Your task to perform on an android device: Open sound settings Image 0: 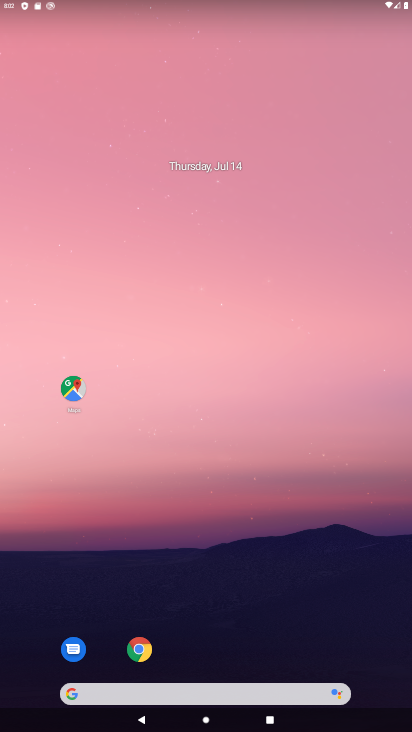
Step 0: drag from (167, 682) to (158, 298)
Your task to perform on an android device: Open sound settings Image 1: 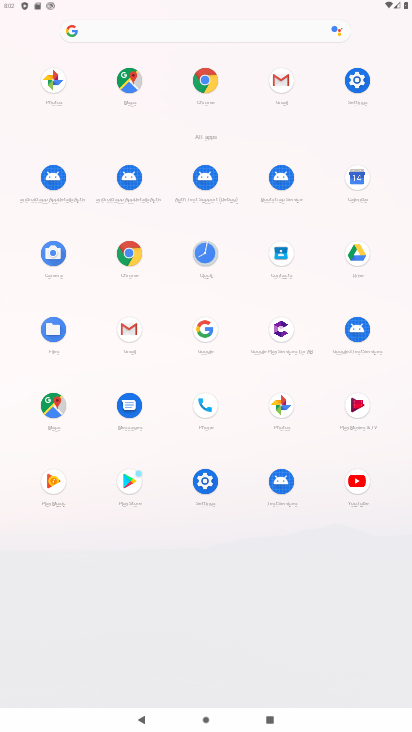
Step 1: click (357, 82)
Your task to perform on an android device: Open sound settings Image 2: 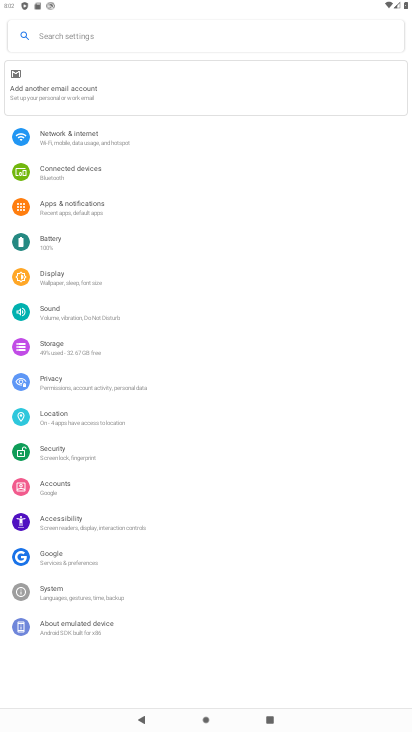
Step 2: click (42, 318)
Your task to perform on an android device: Open sound settings Image 3: 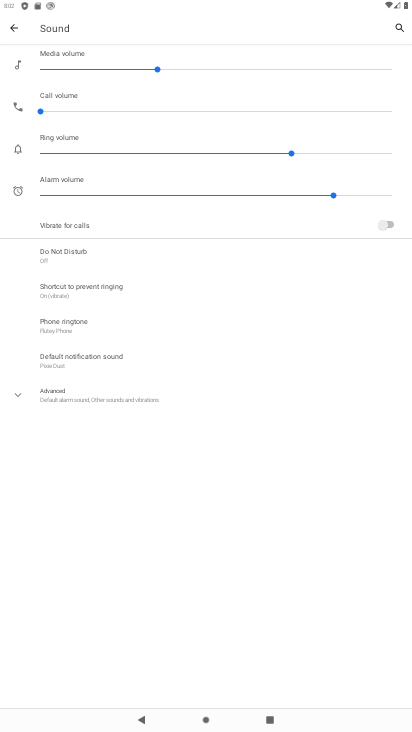
Step 3: click (45, 393)
Your task to perform on an android device: Open sound settings Image 4: 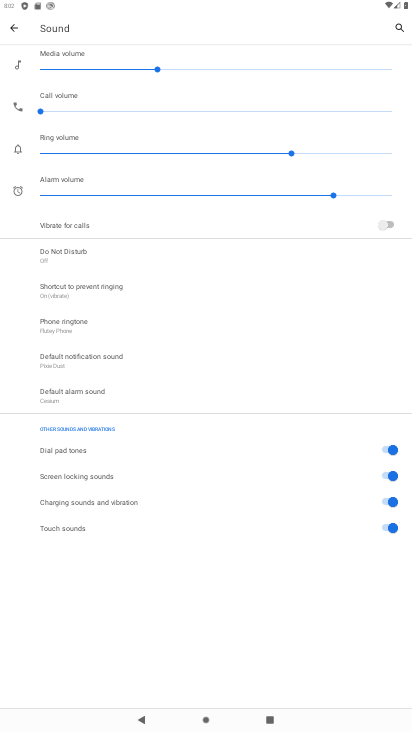
Step 4: task complete